Your task to perform on an android device: add a contact Image 0: 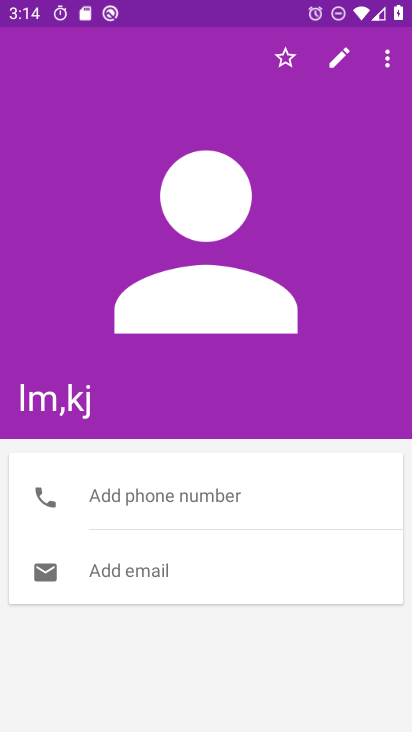
Step 0: press home button
Your task to perform on an android device: add a contact Image 1: 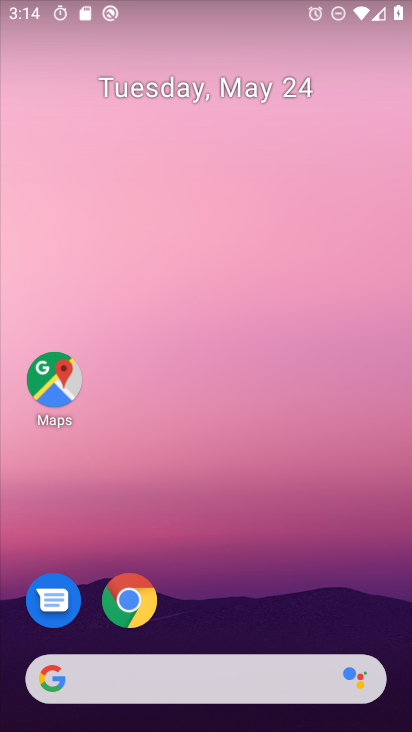
Step 1: drag from (268, 570) to (181, 161)
Your task to perform on an android device: add a contact Image 2: 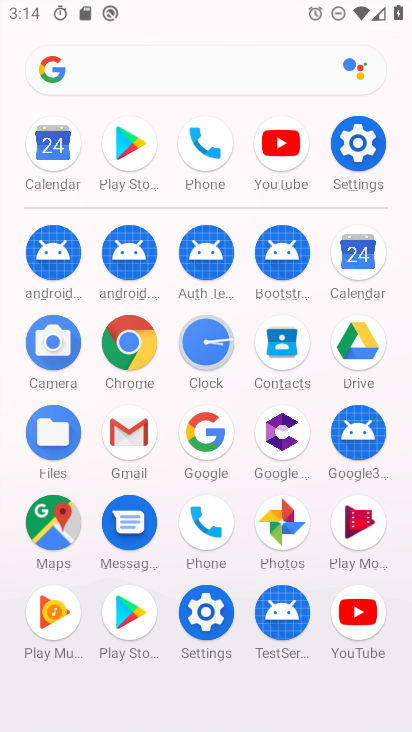
Step 2: click (284, 342)
Your task to perform on an android device: add a contact Image 3: 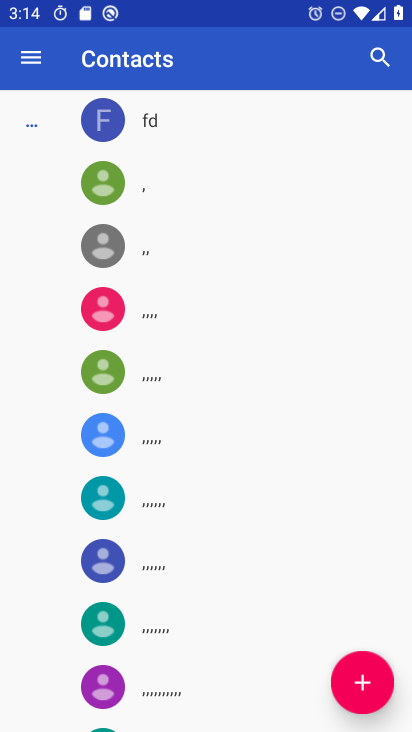
Step 3: click (361, 676)
Your task to perform on an android device: add a contact Image 4: 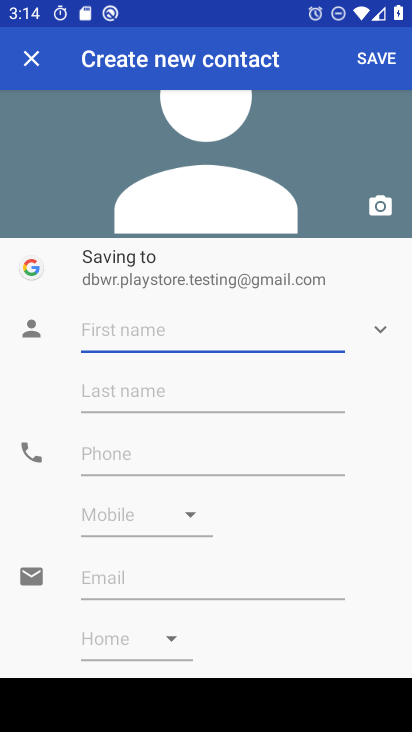
Step 4: type "johhnt"
Your task to perform on an android device: add a contact Image 5: 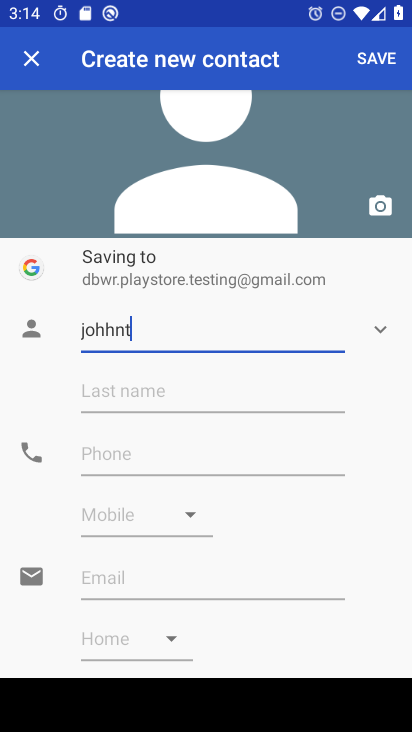
Step 5: click (375, 62)
Your task to perform on an android device: add a contact Image 6: 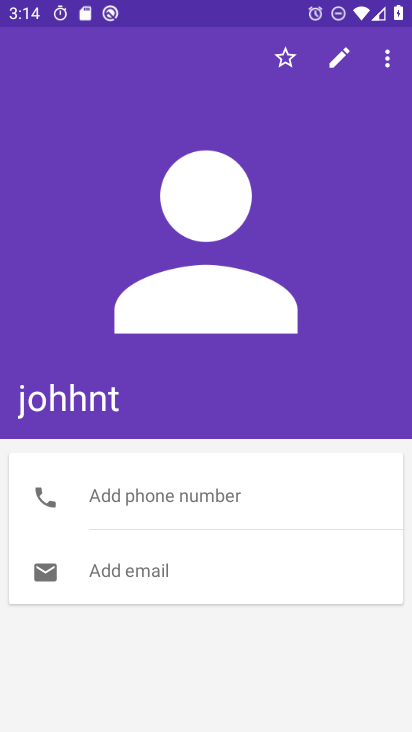
Step 6: task complete